Your task to perform on an android device: Open Yahoo.com Image 0: 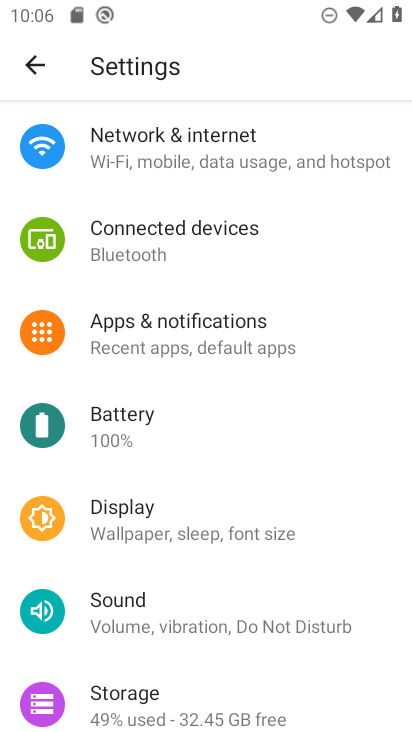
Step 0: press home button
Your task to perform on an android device: Open Yahoo.com Image 1: 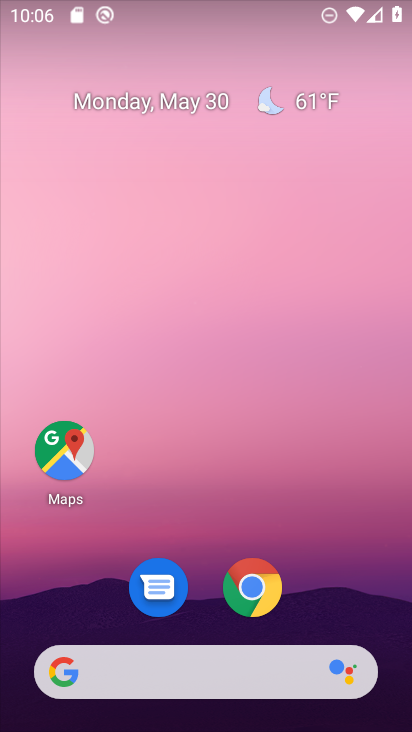
Step 1: click (265, 594)
Your task to perform on an android device: Open Yahoo.com Image 2: 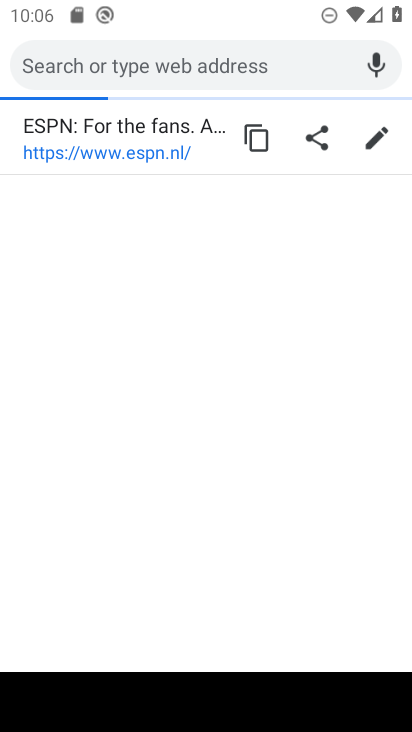
Step 2: press home button
Your task to perform on an android device: Open Yahoo.com Image 3: 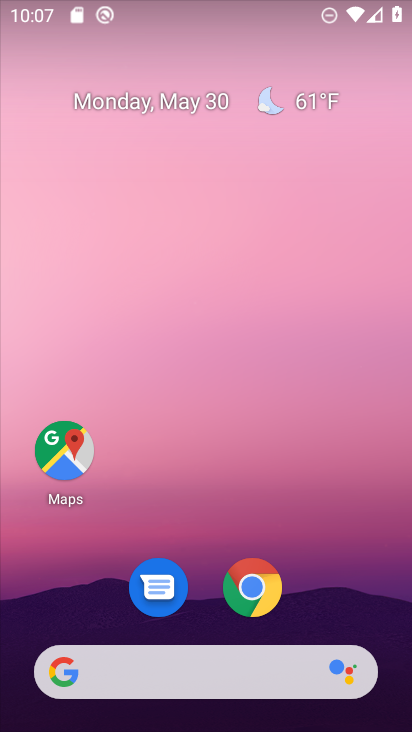
Step 3: click (266, 589)
Your task to perform on an android device: Open Yahoo.com Image 4: 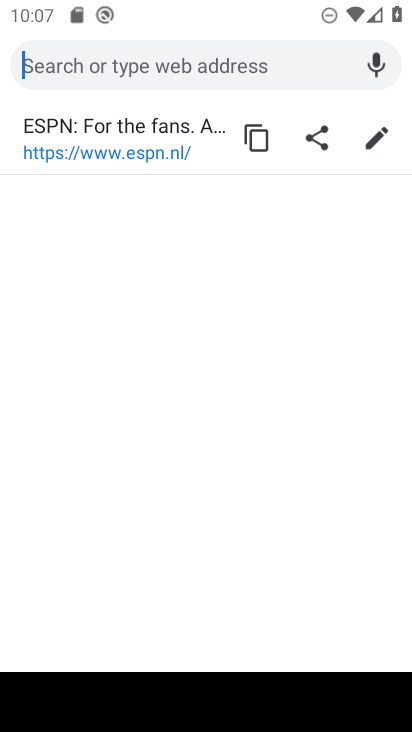
Step 4: press back button
Your task to perform on an android device: Open Yahoo.com Image 5: 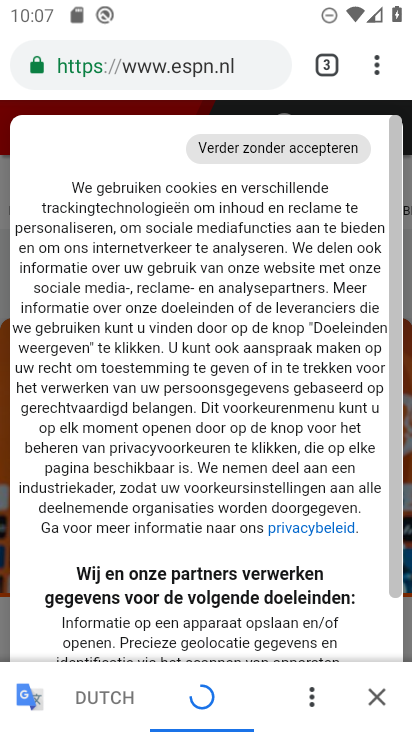
Step 5: click (336, 68)
Your task to perform on an android device: Open Yahoo.com Image 6: 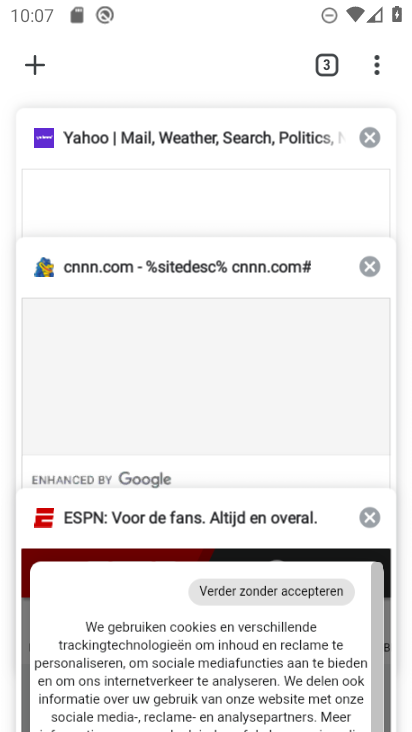
Step 6: click (50, 150)
Your task to perform on an android device: Open Yahoo.com Image 7: 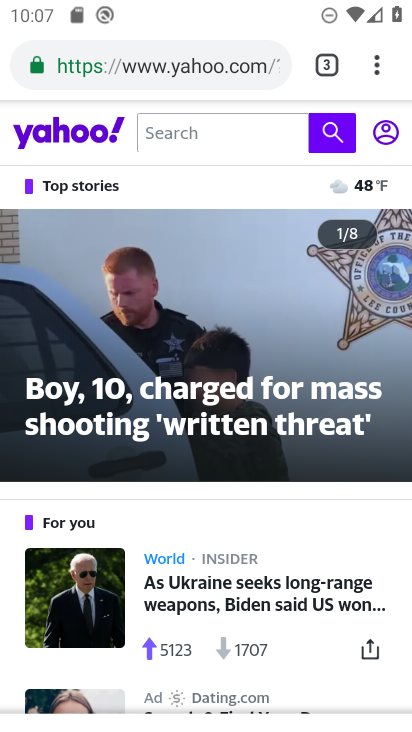
Step 7: task complete